Your task to perform on an android device: Go to internet settings Image 0: 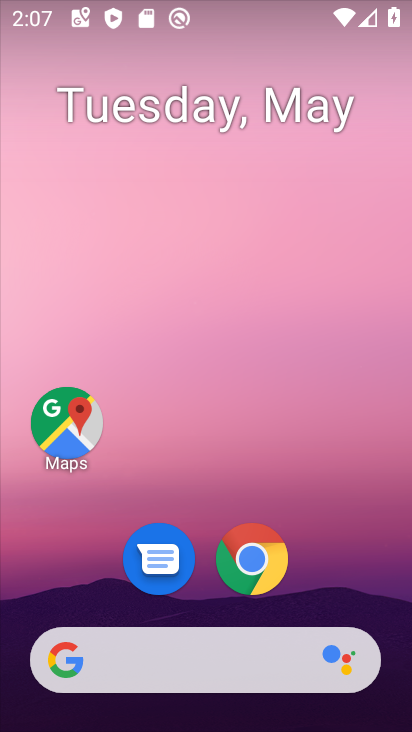
Step 0: drag from (206, 666) to (238, 70)
Your task to perform on an android device: Go to internet settings Image 1: 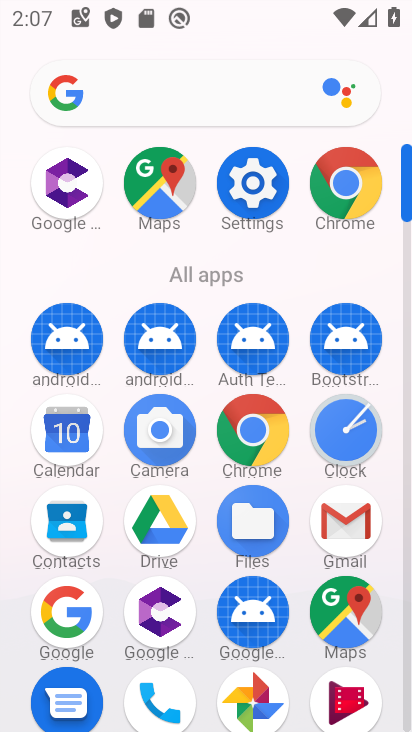
Step 1: click (261, 198)
Your task to perform on an android device: Go to internet settings Image 2: 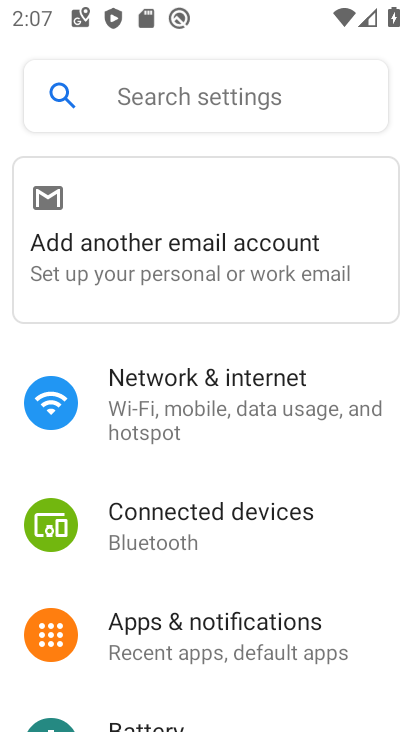
Step 2: click (233, 401)
Your task to perform on an android device: Go to internet settings Image 3: 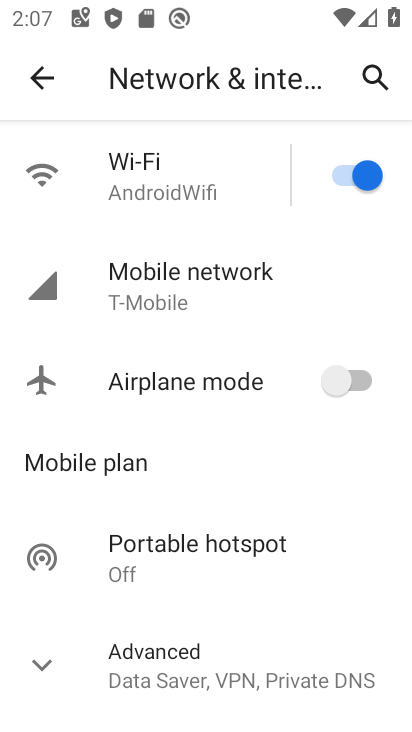
Step 3: task complete